Your task to perform on an android device: turn off location Image 0: 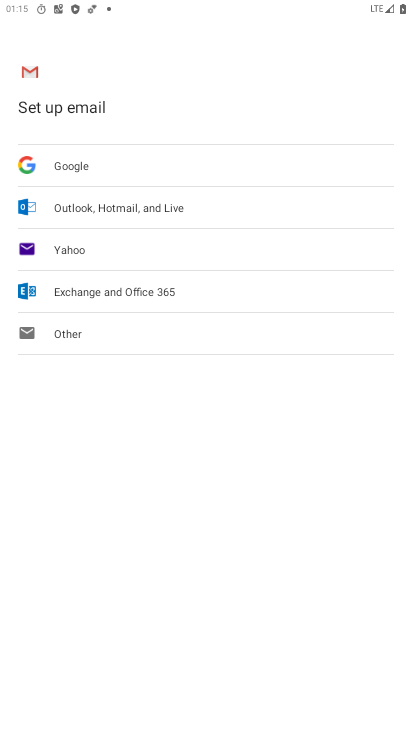
Step 0: press home button
Your task to perform on an android device: turn off location Image 1: 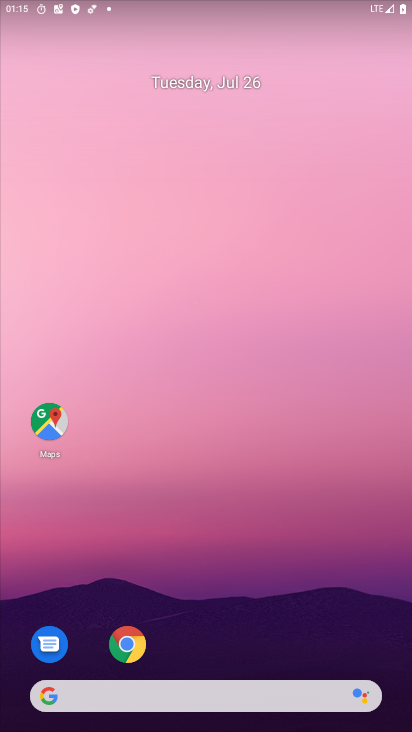
Step 1: drag from (256, 669) to (233, 16)
Your task to perform on an android device: turn off location Image 2: 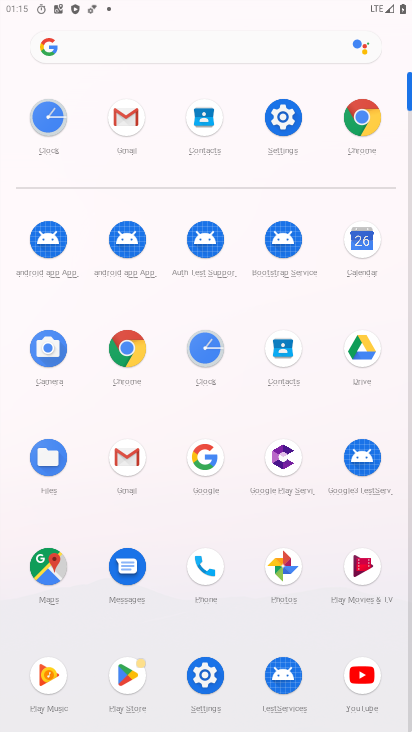
Step 2: click (284, 123)
Your task to perform on an android device: turn off location Image 3: 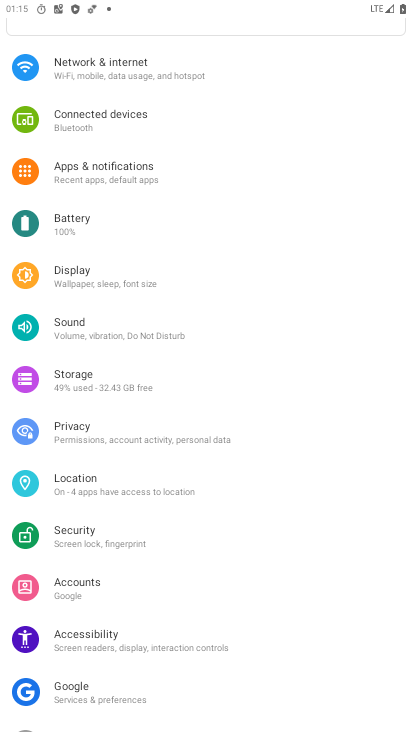
Step 3: click (72, 481)
Your task to perform on an android device: turn off location Image 4: 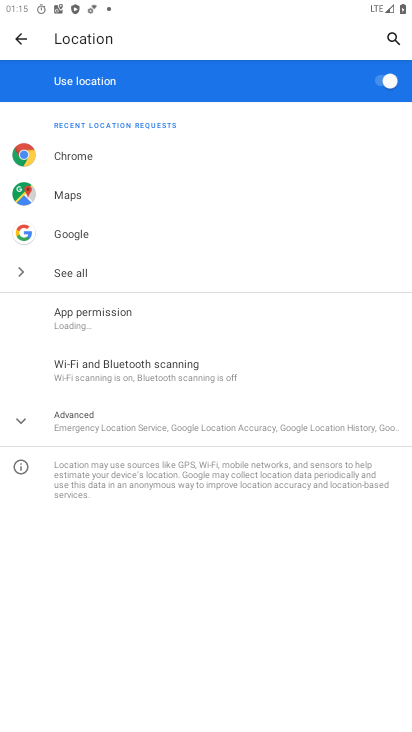
Step 4: click (389, 85)
Your task to perform on an android device: turn off location Image 5: 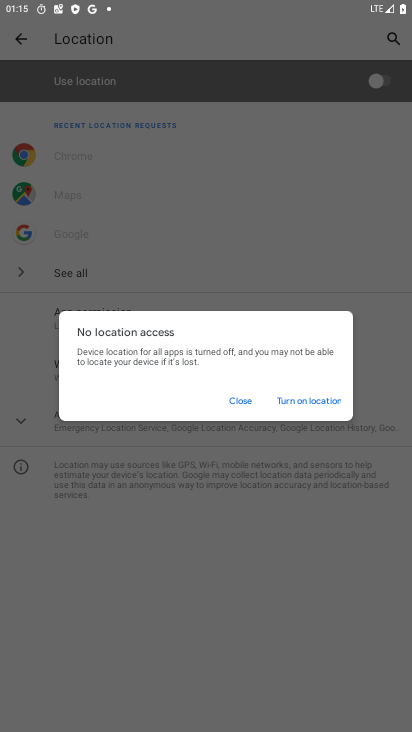
Step 5: click (242, 407)
Your task to perform on an android device: turn off location Image 6: 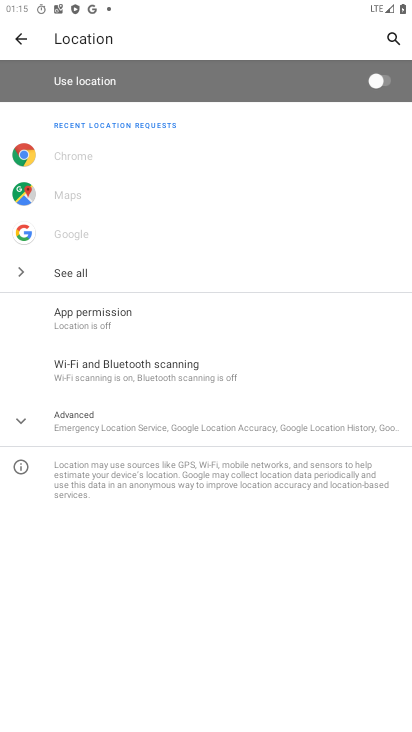
Step 6: task complete